Your task to perform on an android device: refresh tabs in the chrome app Image 0: 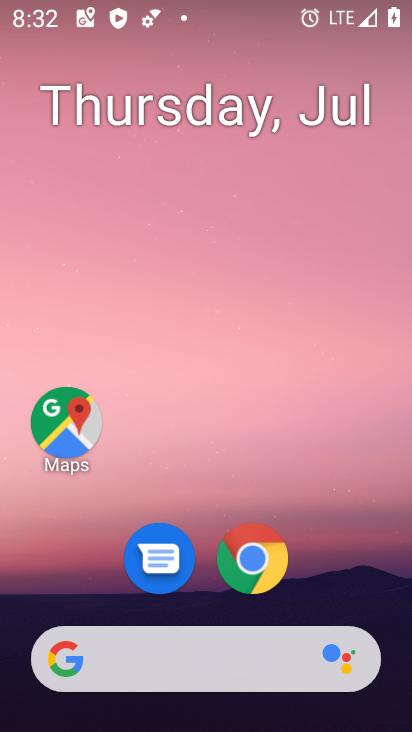
Step 0: drag from (231, 609) to (342, 163)
Your task to perform on an android device: refresh tabs in the chrome app Image 1: 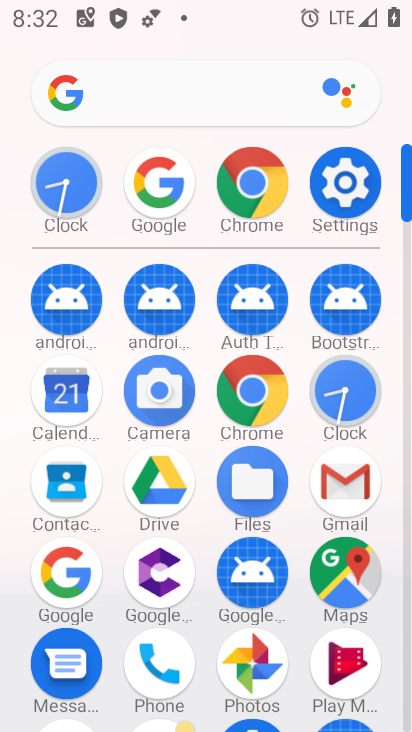
Step 1: click (246, 207)
Your task to perform on an android device: refresh tabs in the chrome app Image 2: 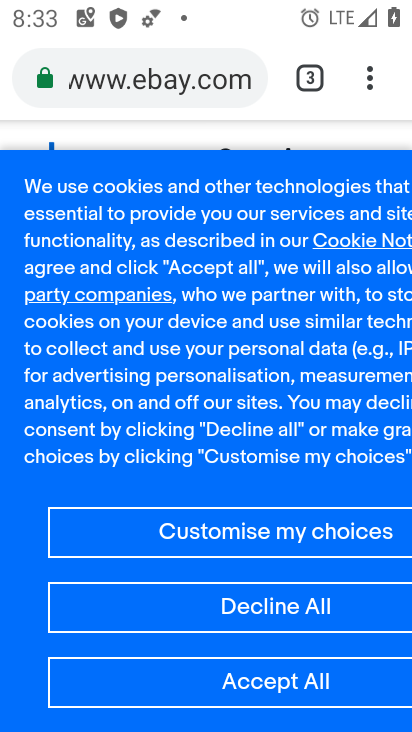
Step 2: click (369, 87)
Your task to perform on an android device: refresh tabs in the chrome app Image 3: 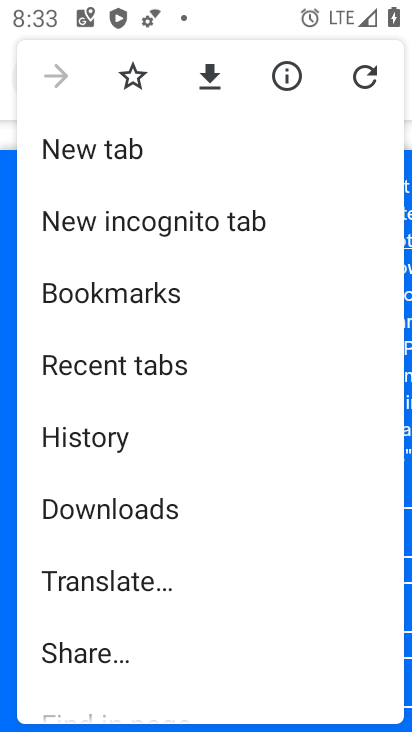
Step 3: click (376, 83)
Your task to perform on an android device: refresh tabs in the chrome app Image 4: 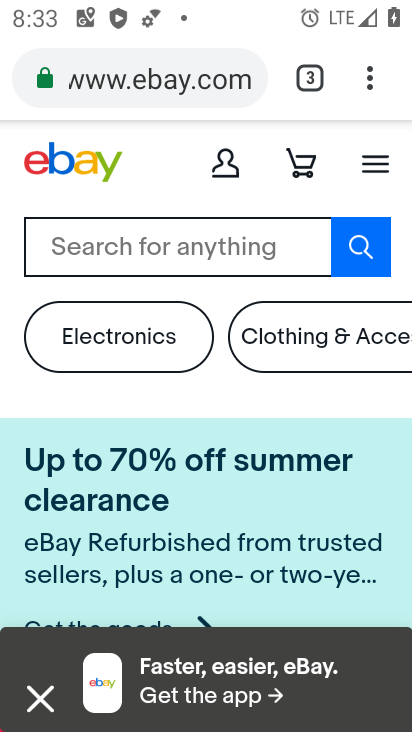
Step 4: task complete